Your task to perform on an android device: Open the calendar and show me this week's events? Image 0: 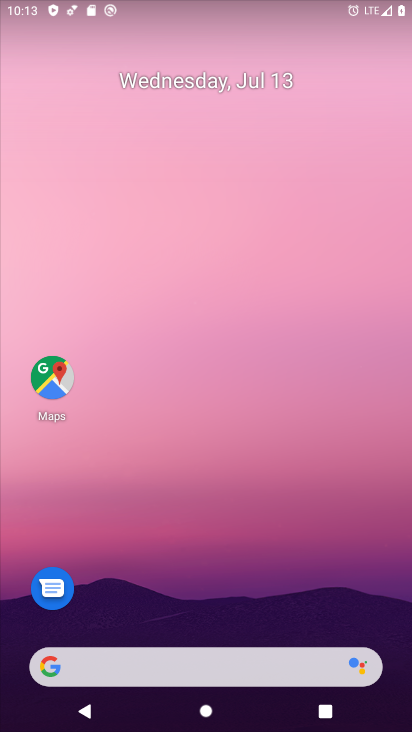
Step 0: drag from (144, 650) to (174, 197)
Your task to perform on an android device: Open the calendar and show me this week's events? Image 1: 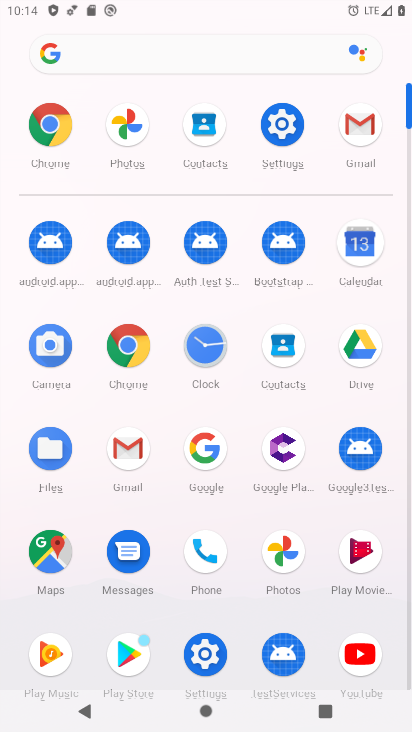
Step 1: click (357, 253)
Your task to perform on an android device: Open the calendar and show me this week's events? Image 2: 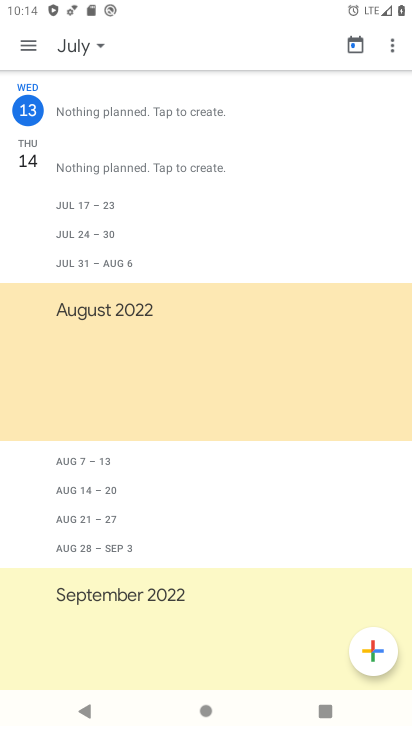
Step 2: click (71, 41)
Your task to perform on an android device: Open the calendar and show me this week's events? Image 3: 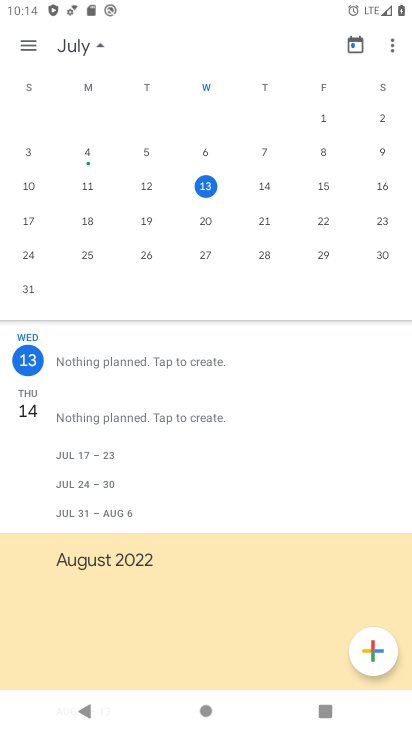
Step 3: task complete